Your task to perform on an android device: Do I have any events tomorrow? Image 0: 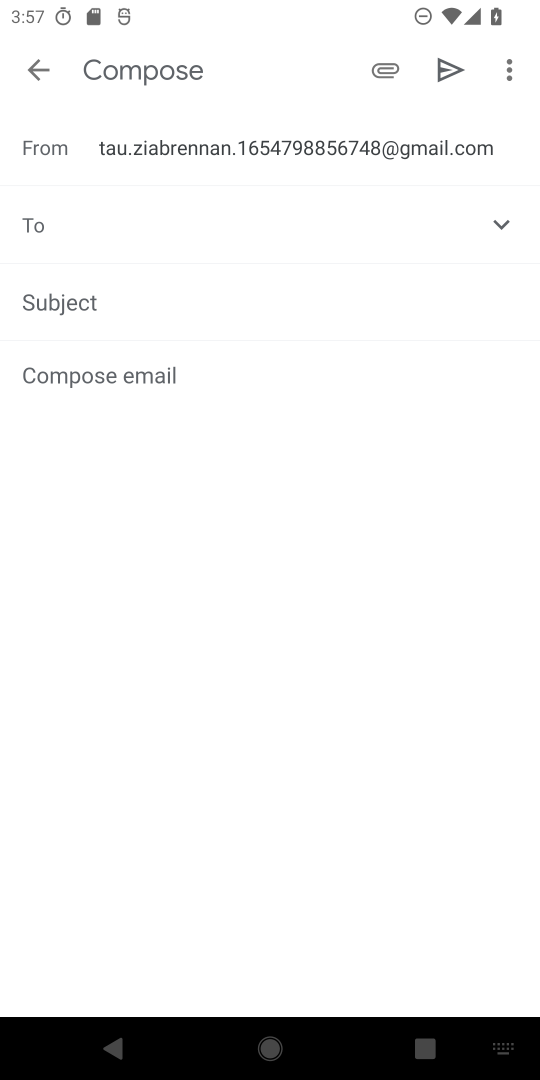
Step 0: press home button
Your task to perform on an android device: Do I have any events tomorrow? Image 1: 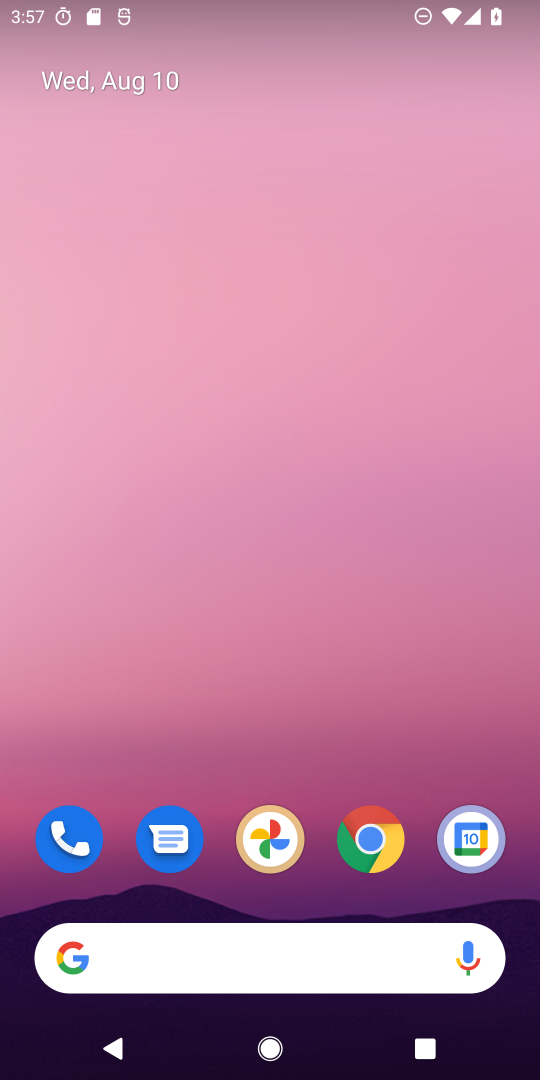
Step 1: drag from (146, 797) to (232, 506)
Your task to perform on an android device: Do I have any events tomorrow? Image 2: 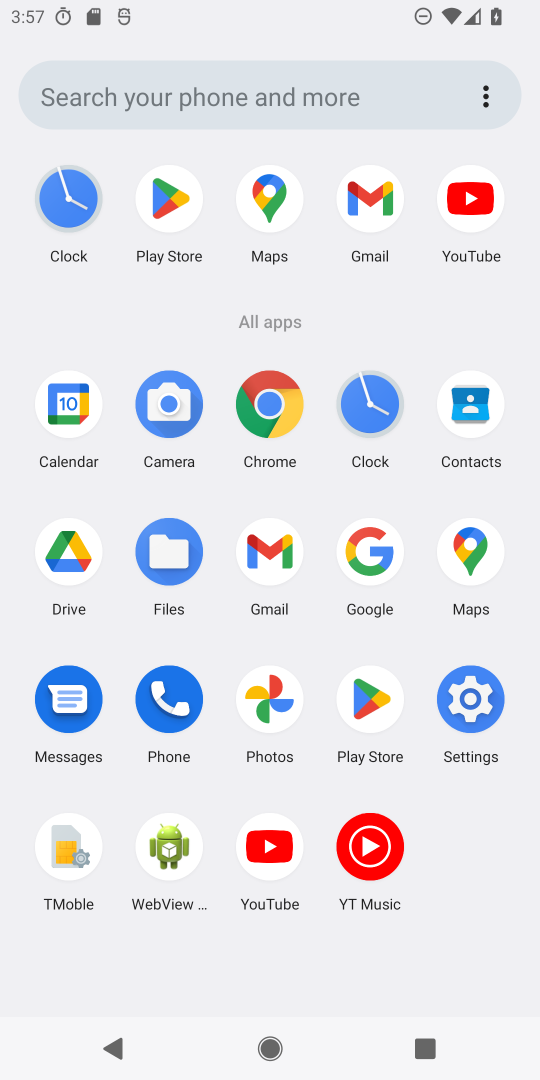
Step 2: click (68, 428)
Your task to perform on an android device: Do I have any events tomorrow? Image 3: 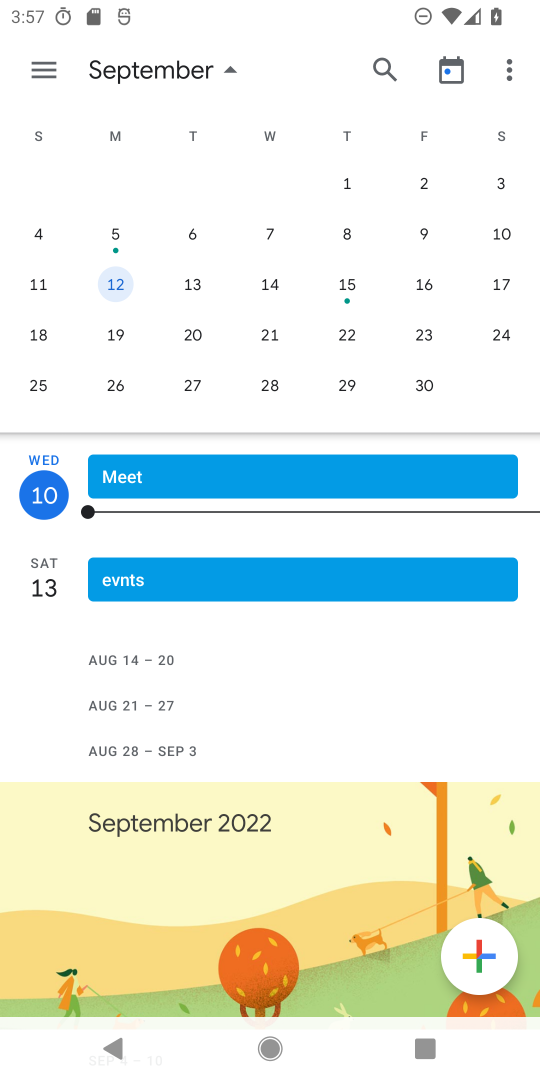
Step 3: drag from (10, 188) to (528, 353)
Your task to perform on an android device: Do I have any events tomorrow? Image 4: 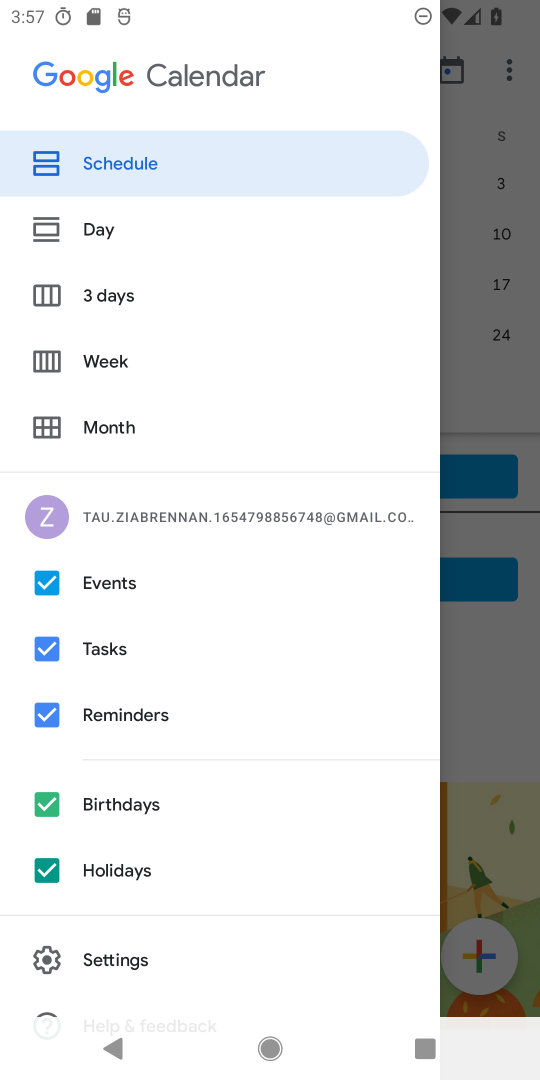
Step 4: click (479, 641)
Your task to perform on an android device: Do I have any events tomorrow? Image 5: 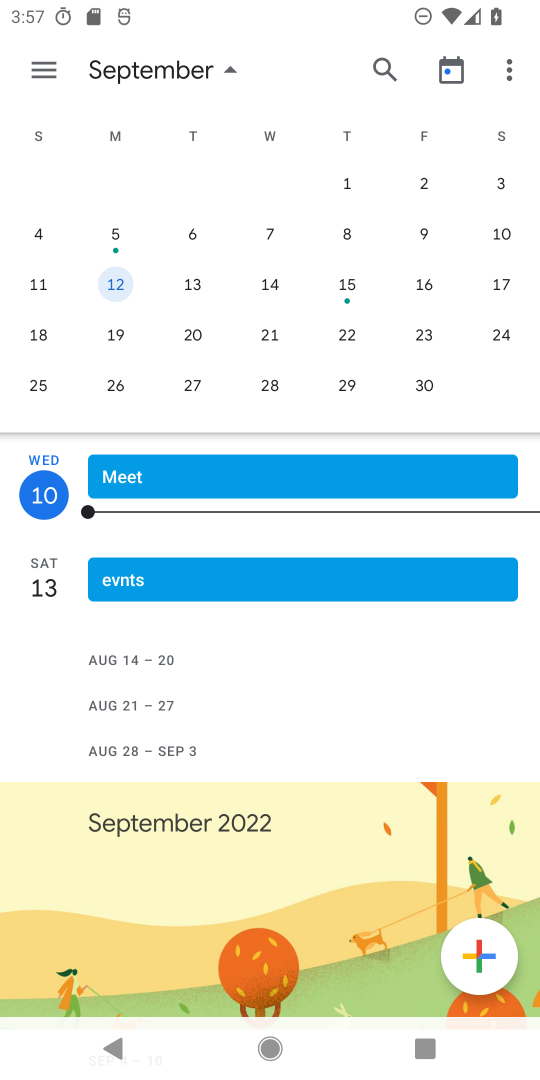
Step 5: drag from (7, 174) to (509, 213)
Your task to perform on an android device: Do I have any events tomorrow? Image 6: 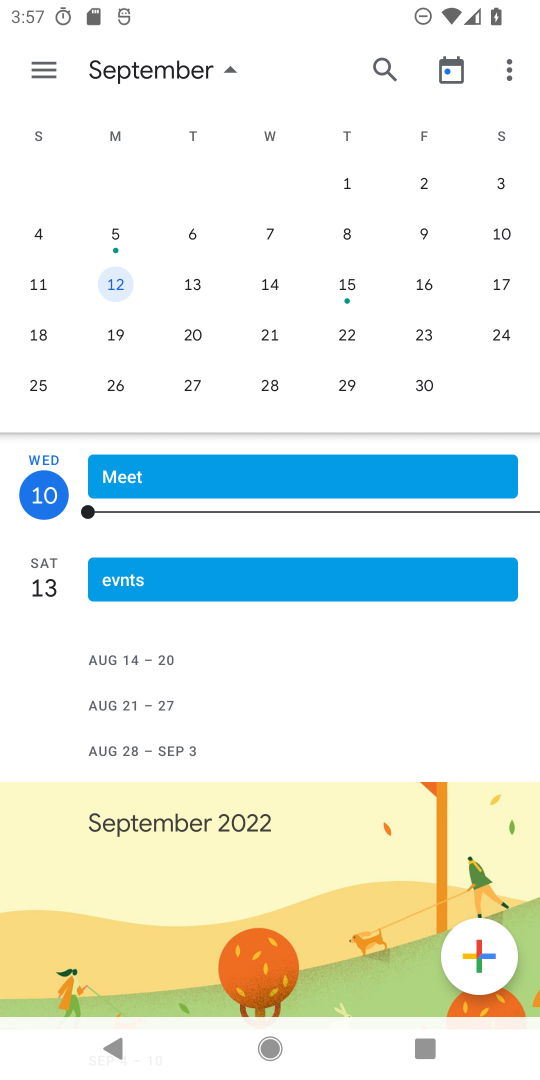
Step 6: drag from (15, 218) to (478, 218)
Your task to perform on an android device: Do I have any events tomorrow? Image 7: 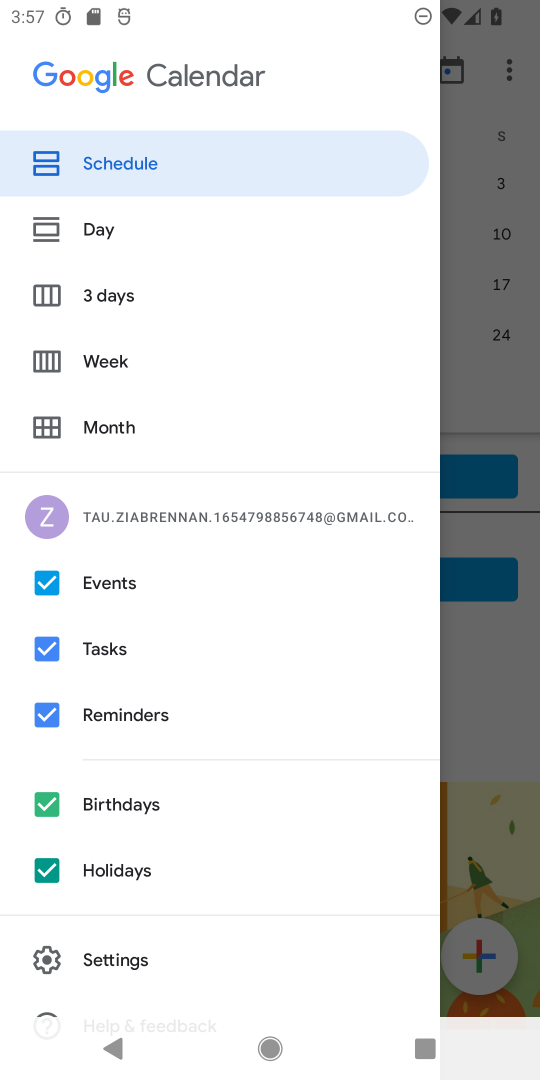
Step 7: click (458, 632)
Your task to perform on an android device: Do I have any events tomorrow? Image 8: 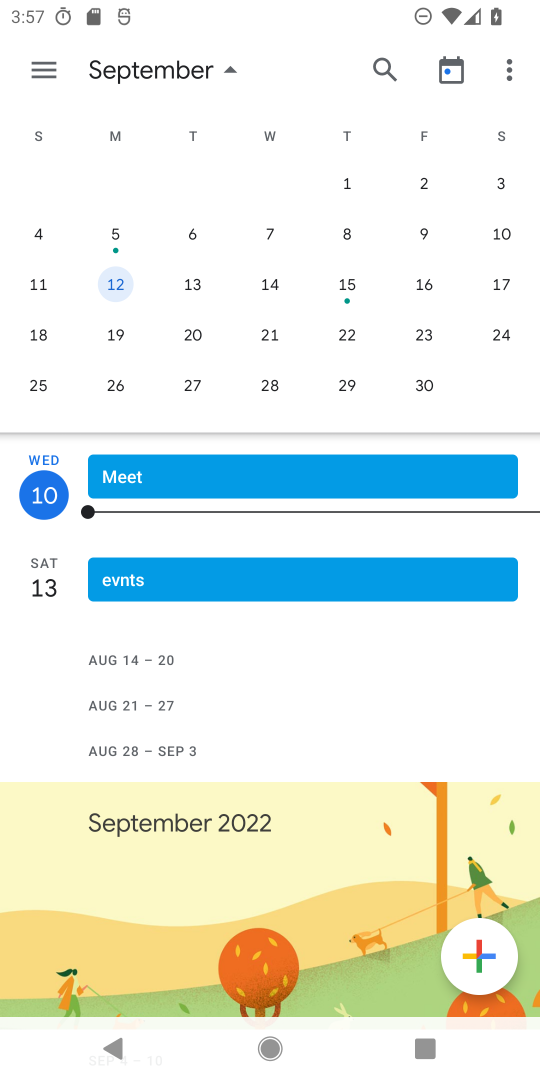
Step 8: task complete